Your task to perform on an android device: turn on wifi Image 0: 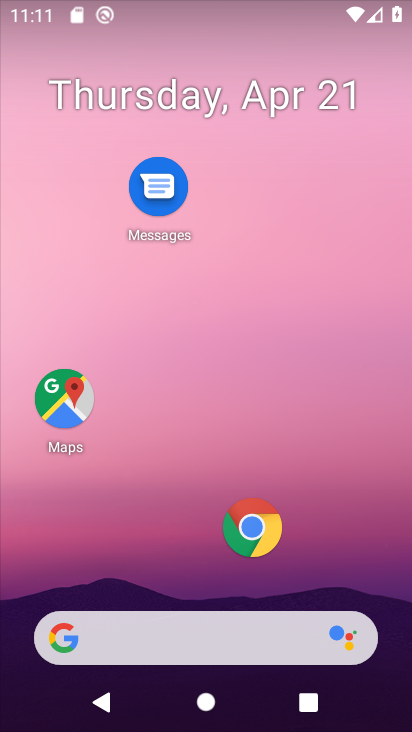
Step 0: drag from (201, 598) to (258, 13)
Your task to perform on an android device: turn on wifi Image 1: 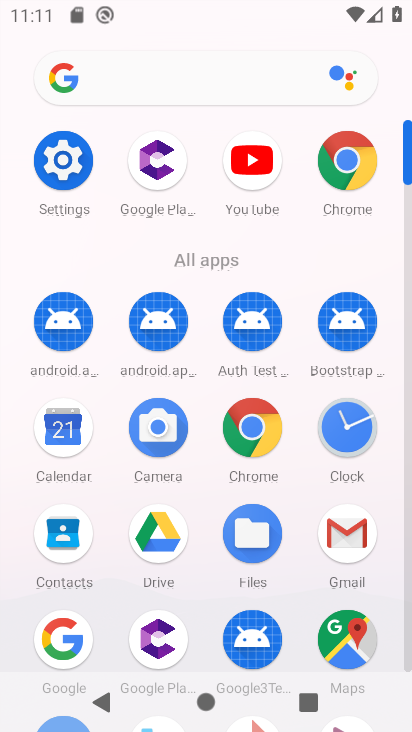
Step 1: click (66, 154)
Your task to perform on an android device: turn on wifi Image 2: 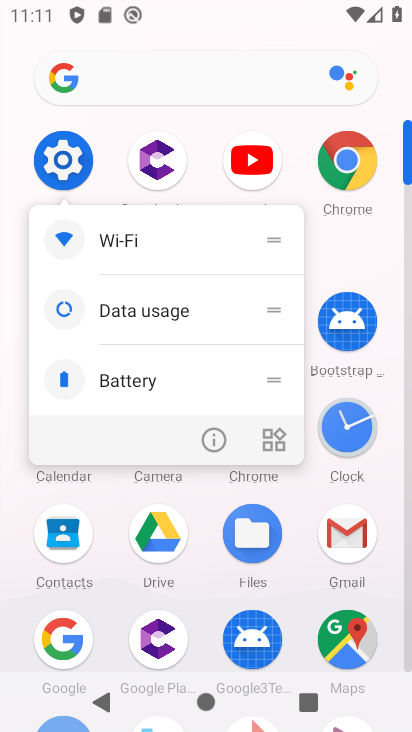
Step 2: click (65, 157)
Your task to perform on an android device: turn on wifi Image 3: 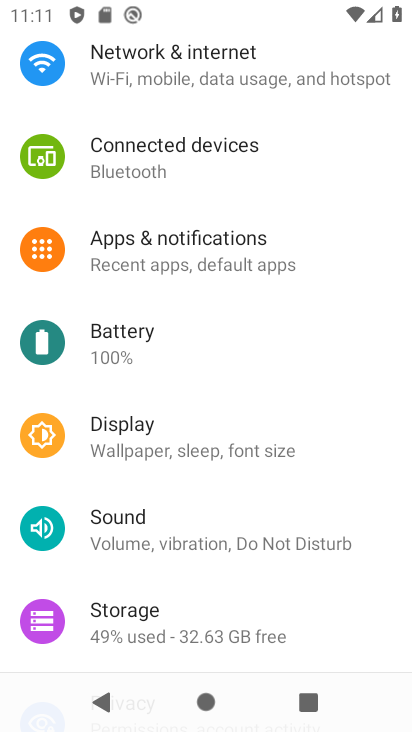
Step 3: drag from (245, 174) to (194, 622)
Your task to perform on an android device: turn on wifi Image 4: 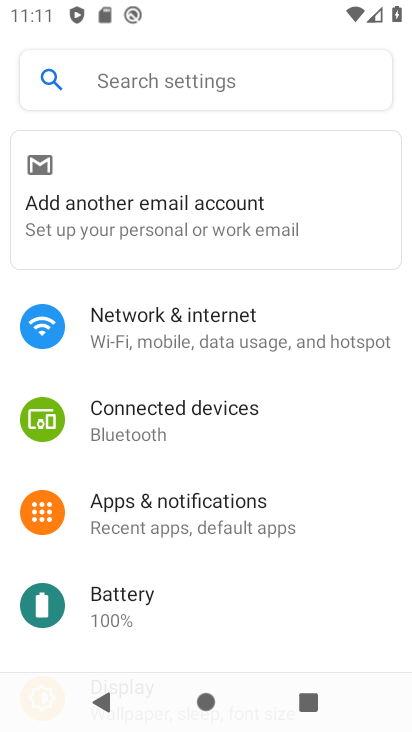
Step 4: click (192, 311)
Your task to perform on an android device: turn on wifi Image 5: 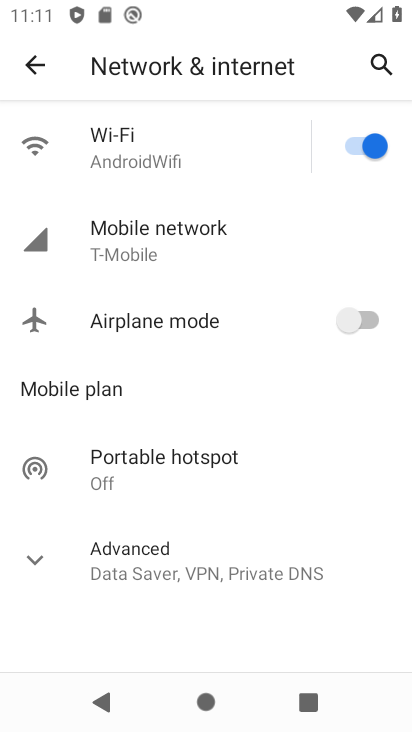
Step 5: click (147, 143)
Your task to perform on an android device: turn on wifi Image 6: 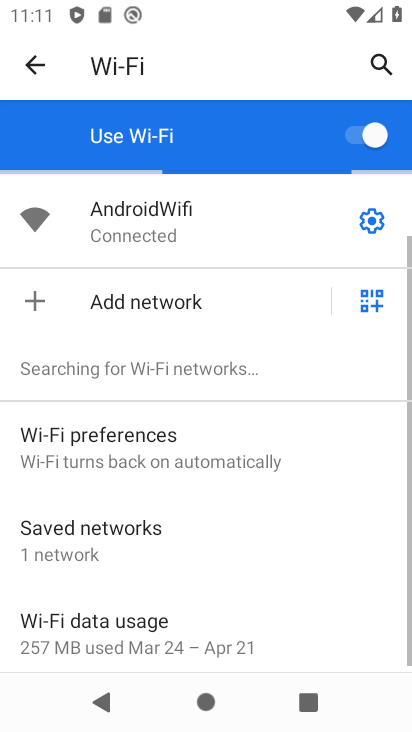
Step 6: task complete